Your task to perform on an android device: What is the news today? Image 0: 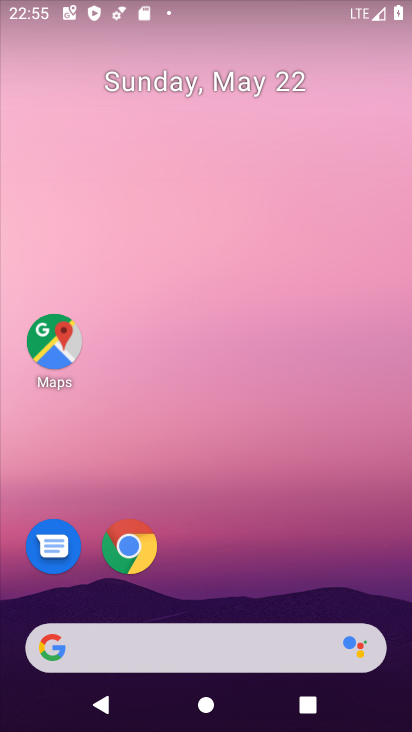
Step 0: drag from (175, 595) to (188, 56)
Your task to perform on an android device: What is the news today? Image 1: 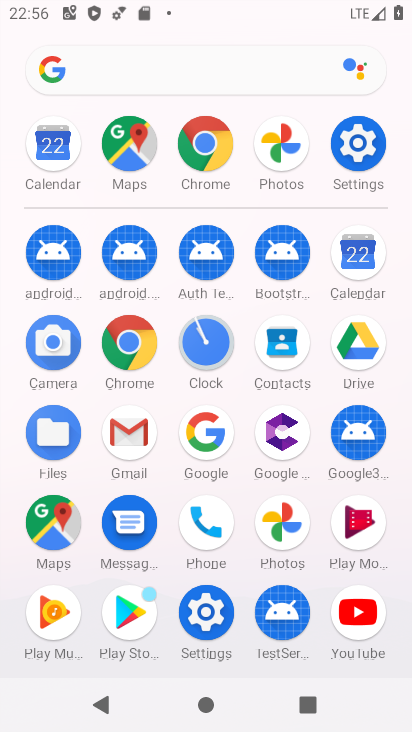
Step 1: click (194, 61)
Your task to perform on an android device: What is the news today? Image 2: 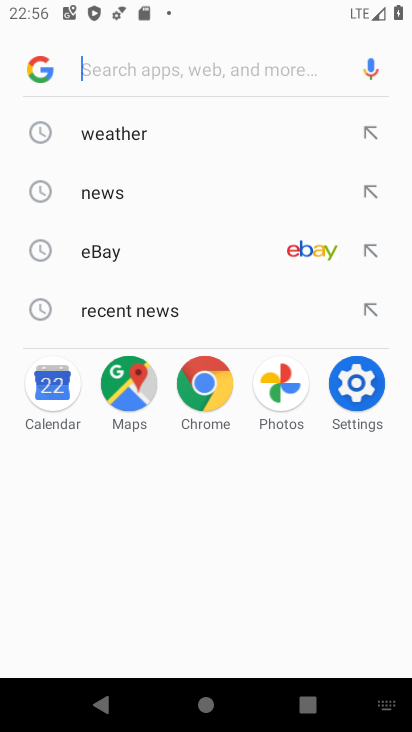
Step 2: type "news today"
Your task to perform on an android device: What is the news today? Image 3: 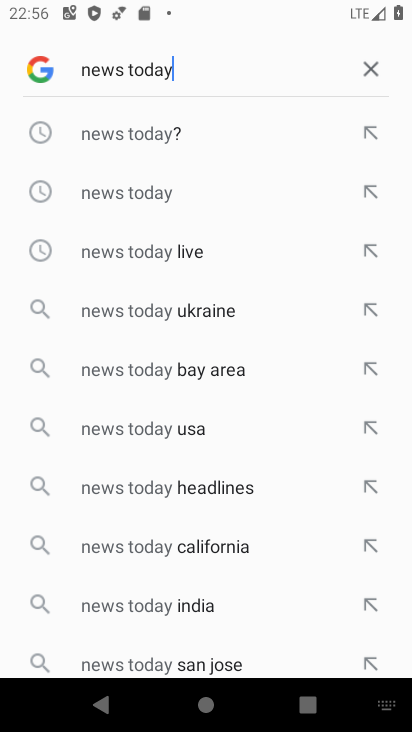
Step 3: click (211, 136)
Your task to perform on an android device: What is the news today? Image 4: 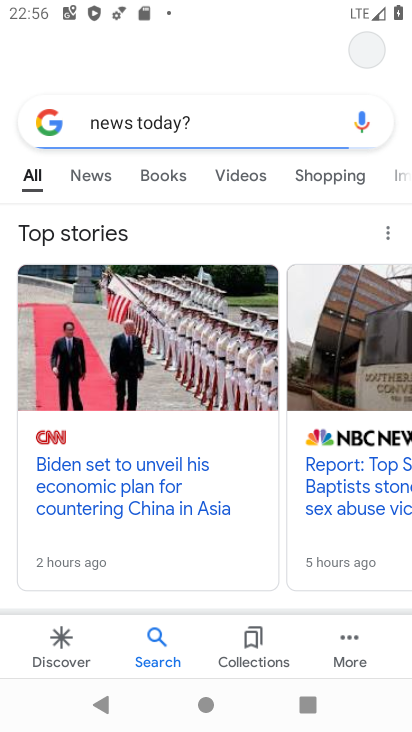
Step 4: task complete